Your task to perform on an android device: Open calendar and show me the fourth week of next month Image 0: 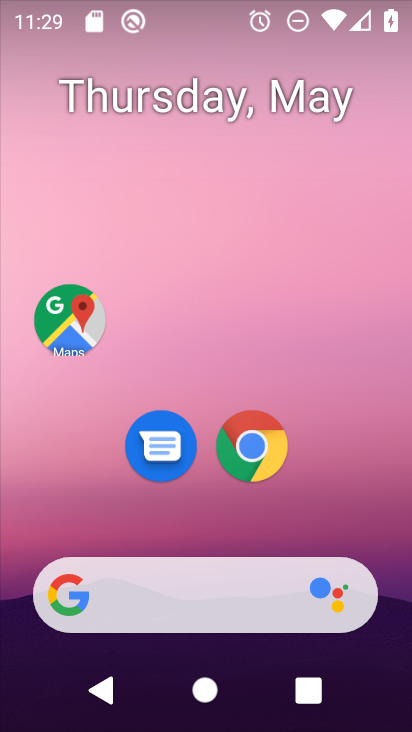
Step 0: drag from (283, 639) to (200, 290)
Your task to perform on an android device: Open calendar and show me the fourth week of next month Image 1: 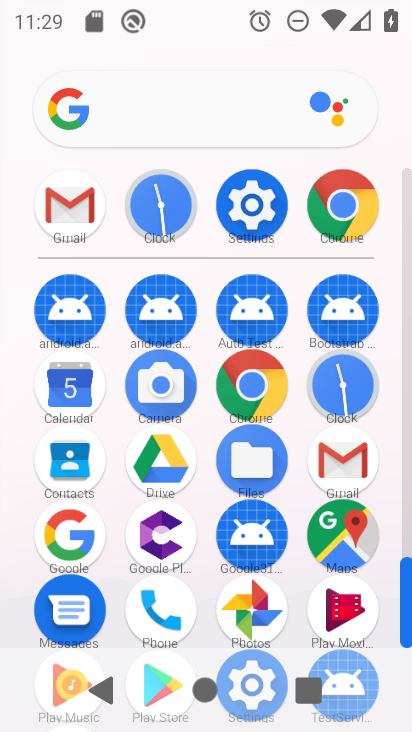
Step 1: click (52, 405)
Your task to perform on an android device: Open calendar and show me the fourth week of next month Image 2: 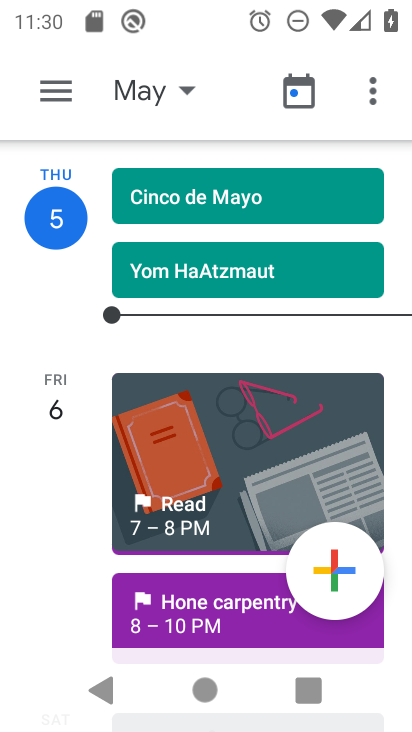
Step 2: click (60, 103)
Your task to perform on an android device: Open calendar and show me the fourth week of next month Image 3: 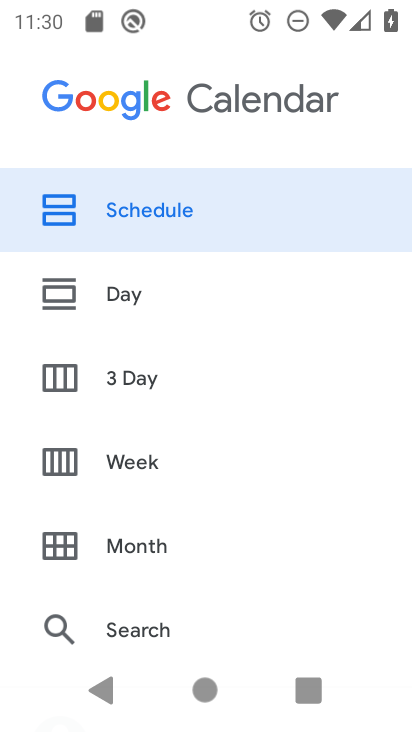
Step 3: click (148, 558)
Your task to perform on an android device: Open calendar and show me the fourth week of next month Image 4: 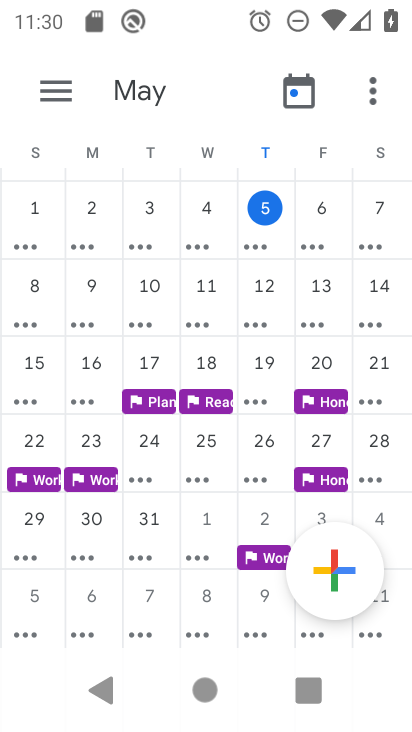
Step 4: drag from (374, 358) to (80, 466)
Your task to perform on an android device: Open calendar and show me the fourth week of next month Image 5: 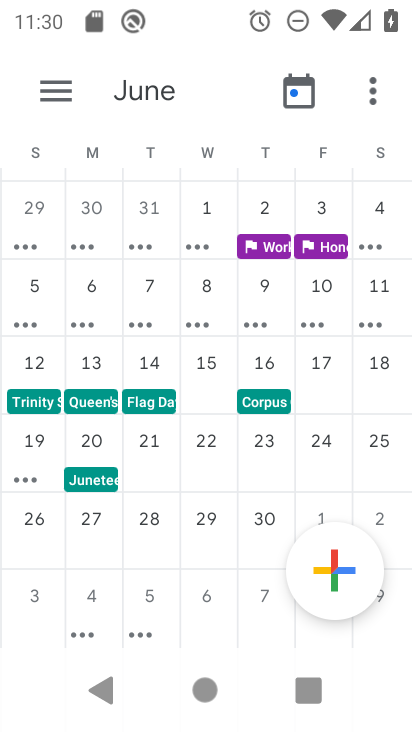
Step 5: click (94, 431)
Your task to perform on an android device: Open calendar and show me the fourth week of next month Image 6: 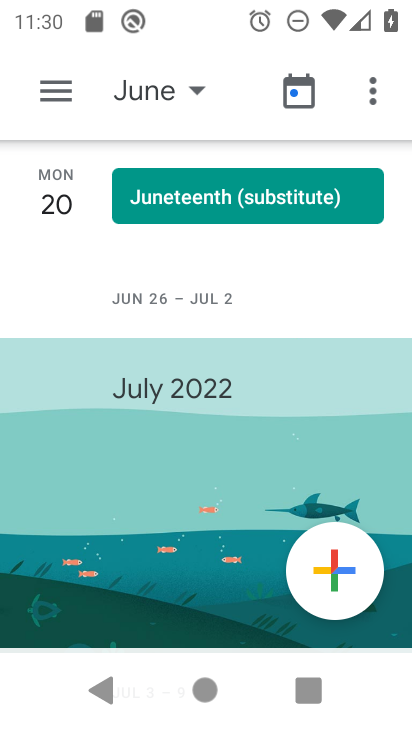
Step 6: task complete